Your task to perform on an android device: turn off airplane mode Image 0: 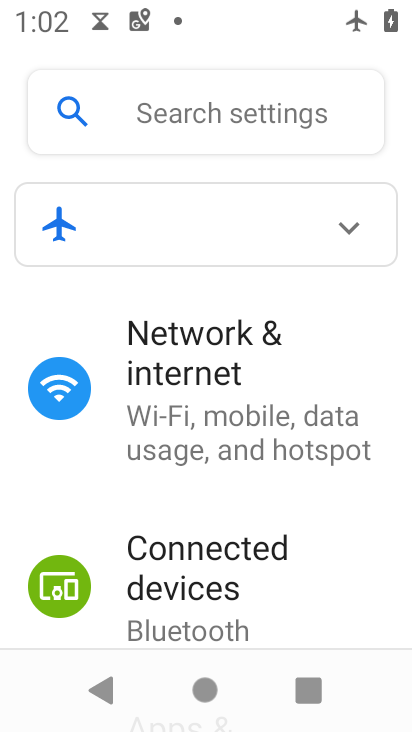
Step 0: click (259, 414)
Your task to perform on an android device: turn off airplane mode Image 1: 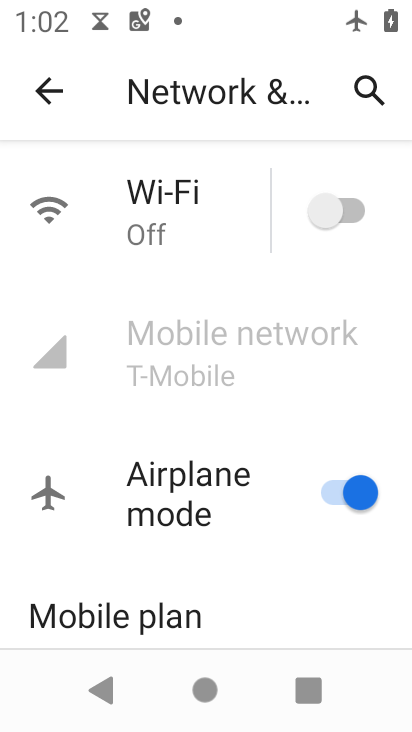
Step 1: click (330, 487)
Your task to perform on an android device: turn off airplane mode Image 2: 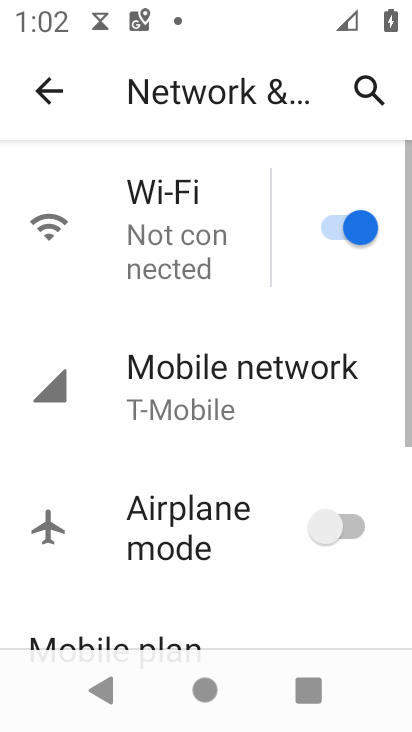
Step 2: task complete